Your task to perform on an android device: Open privacy settings Image 0: 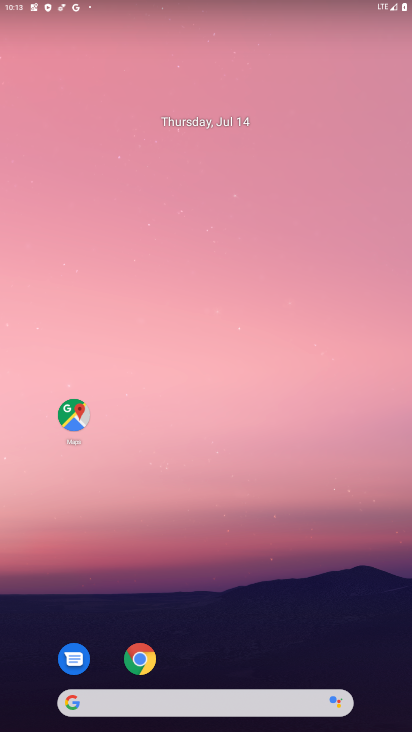
Step 0: drag from (267, 632) to (203, 121)
Your task to perform on an android device: Open privacy settings Image 1: 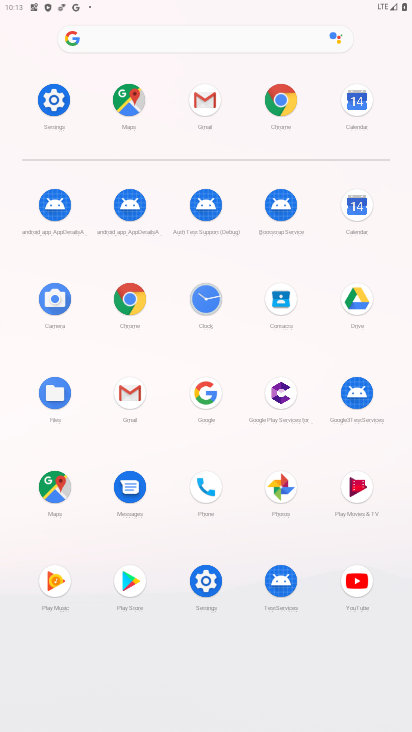
Step 1: click (57, 94)
Your task to perform on an android device: Open privacy settings Image 2: 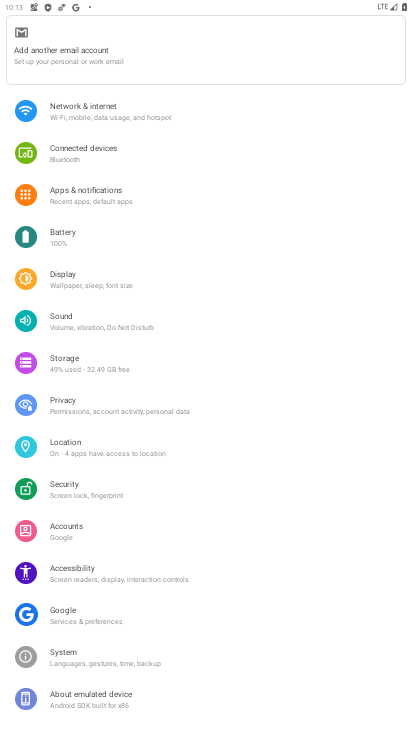
Step 2: click (87, 410)
Your task to perform on an android device: Open privacy settings Image 3: 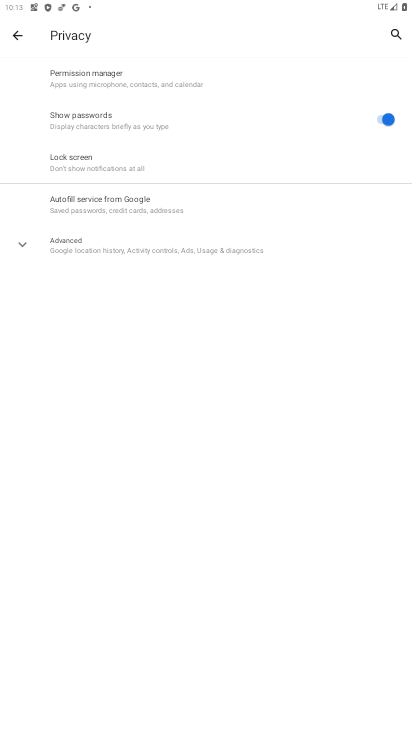
Step 3: task complete